Your task to perform on an android device: Is it going to rain tomorrow? Image 0: 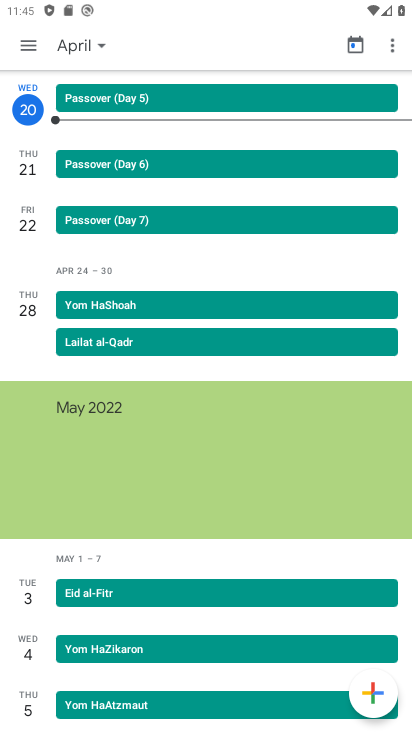
Step 0: press back button
Your task to perform on an android device: Is it going to rain tomorrow? Image 1: 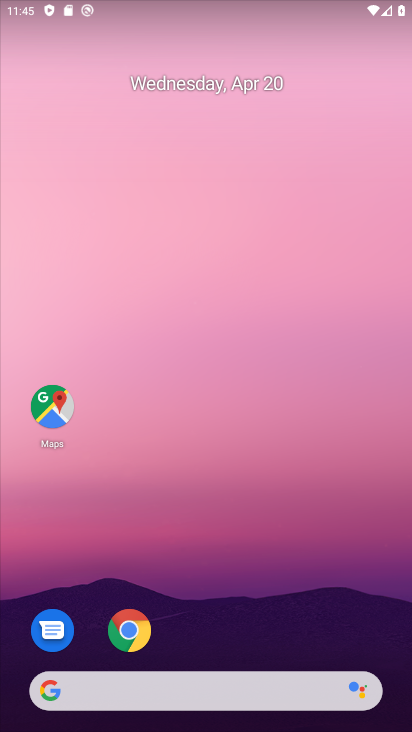
Step 1: drag from (275, 583) to (290, 63)
Your task to perform on an android device: Is it going to rain tomorrow? Image 2: 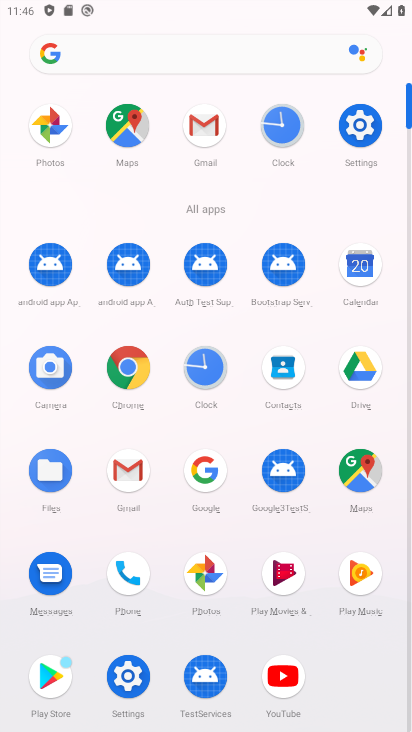
Step 2: click (132, 374)
Your task to perform on an android device: Is it going to rain tomorrow? Image 3: 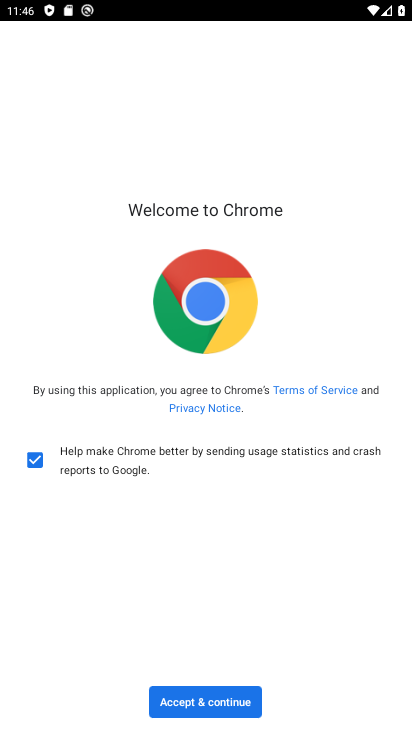
Step 3: click (217, 712)
Your task to perform on an android device: Is it going to rain tomorrow? Image 4: 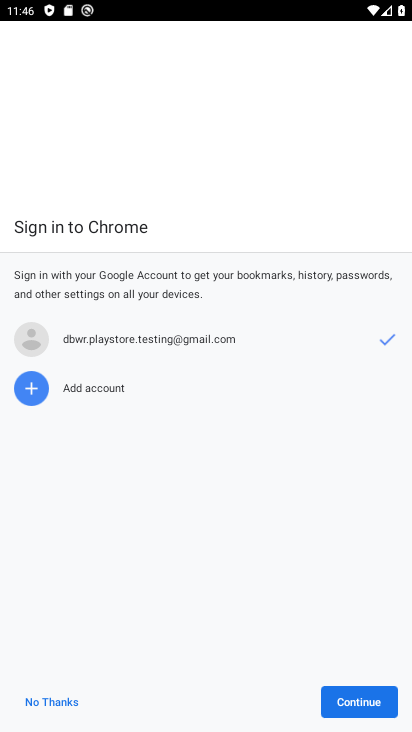
Step 4: click (361, 708)
Your task to perform on an android device: Is it going to rain tomorrow? Image 5: 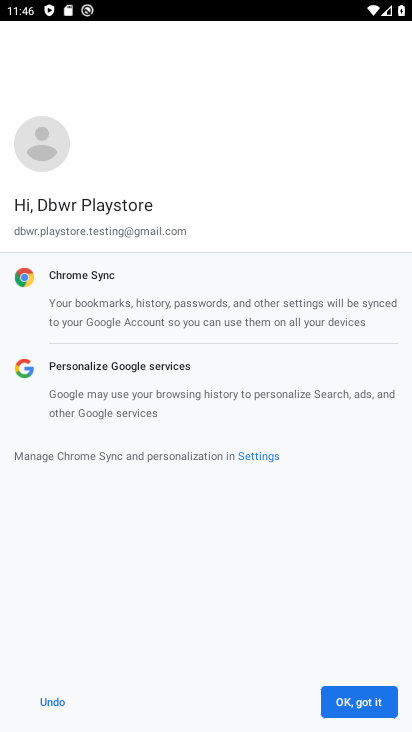
Step 5: click (361, 708)
Your task to perform on an android device: Is it going to rain tomorrow? Image 6: 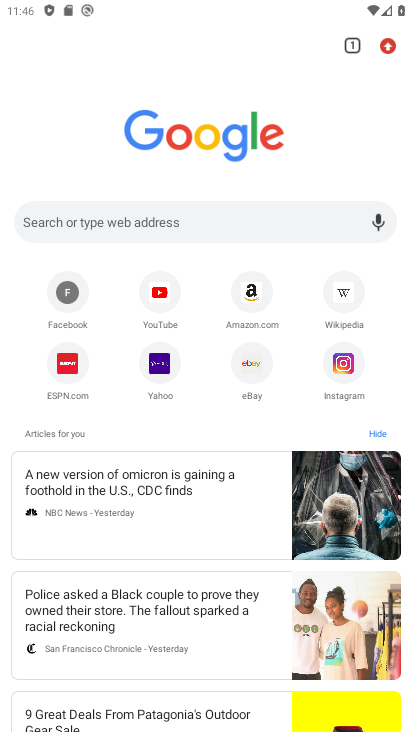
Step 6: click (242, 226)
Your task to perform on an android device: Is it going to rain tomorrow? Image 7: 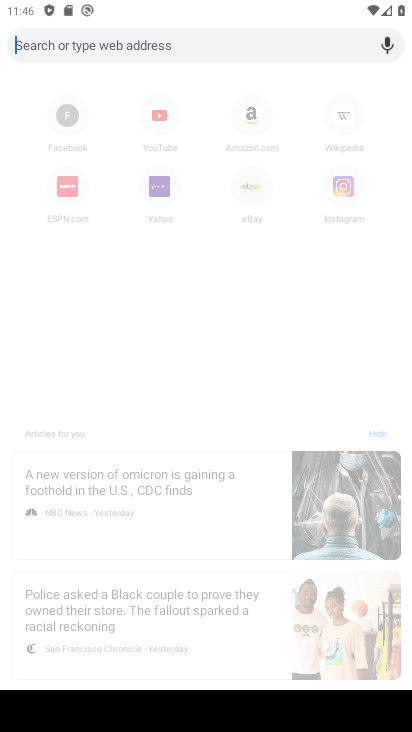
Step 7: type "Is it going to rain tomorrow?"
Your task to perform on an android device: Is it going to rain tomorrow? Image 8: 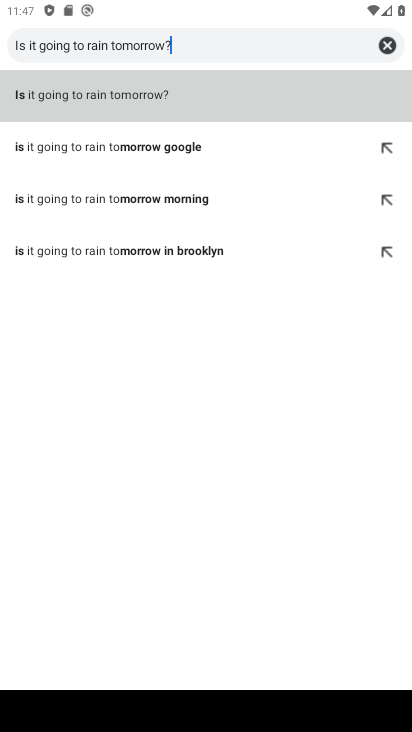
Step 8: click (166, 103)
Your task to perform on an android device: Is it going to rain tomorrow? Image 9: 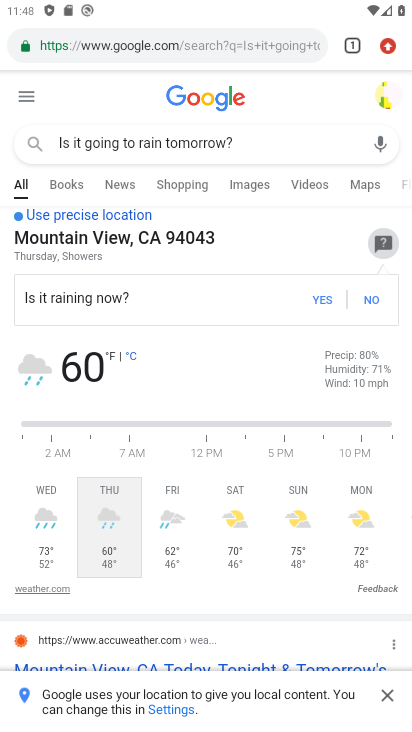
Step 9: task complete